Your task to perform on an android device: Go to Reddit.com Image 0: 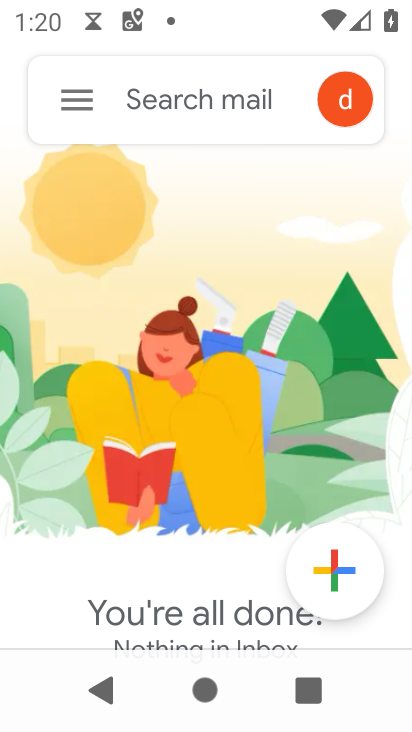
Step 0: press home button
Your task to perform on an android device: Go to Reddit.com Image 1: 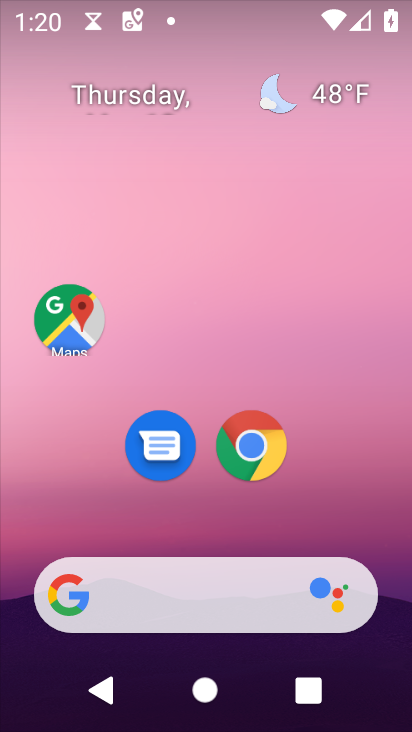
Step 1: click (256, 450)
Your task to perform on an android device: Go to Reddit.com Image 2: 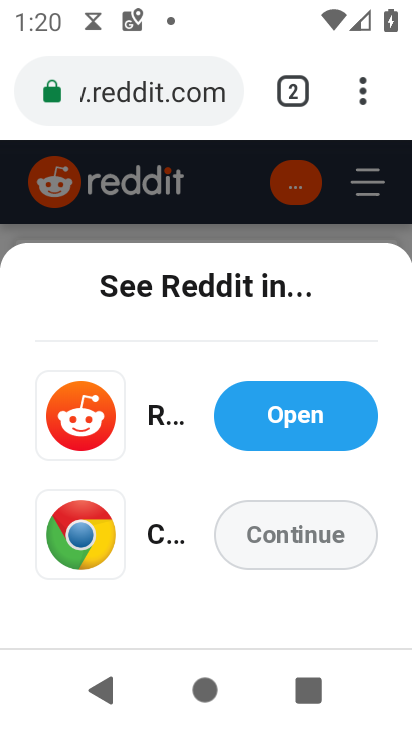
Step 2: click (305, 558)
Your task to perform on an android device: Go to Reddit.com Image 3: 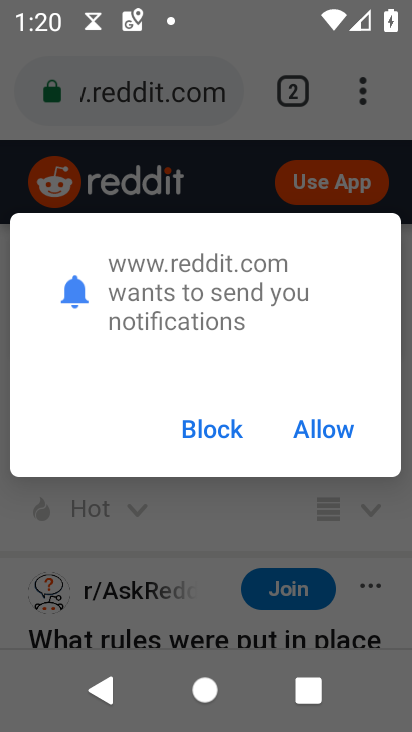
Step 3: click (321, 426)
Your task to perform on an android device: Go to Reddit.com Image 4: 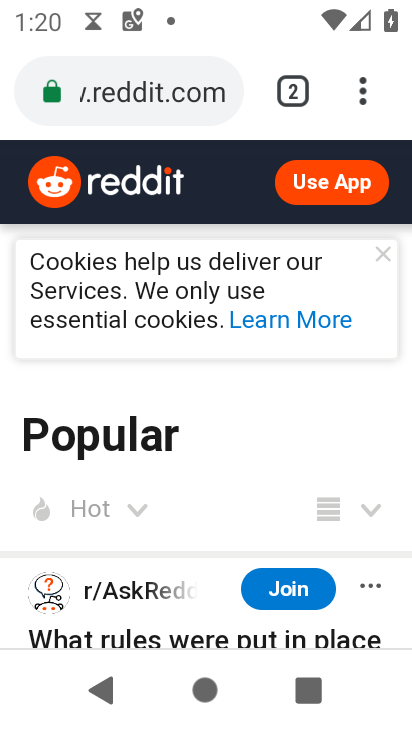
Step 4: task complete